Your task to perform on an android device: turn off improve location accuracy Image 0: 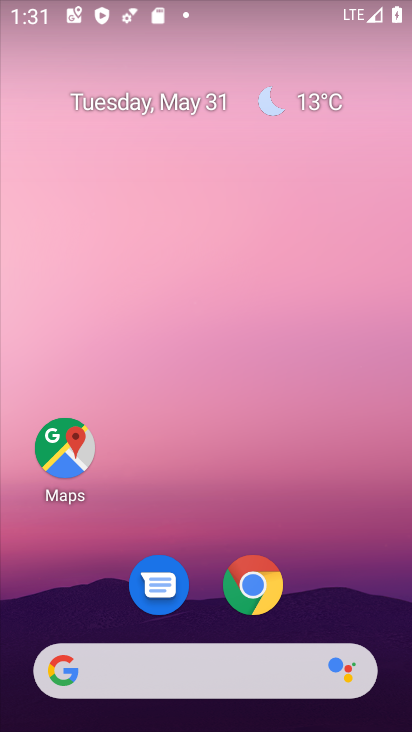
Step 0: drag from (272, 519) to (206, 23)
Your task to perform on an android device: turn off improve location accuracy Image 1: 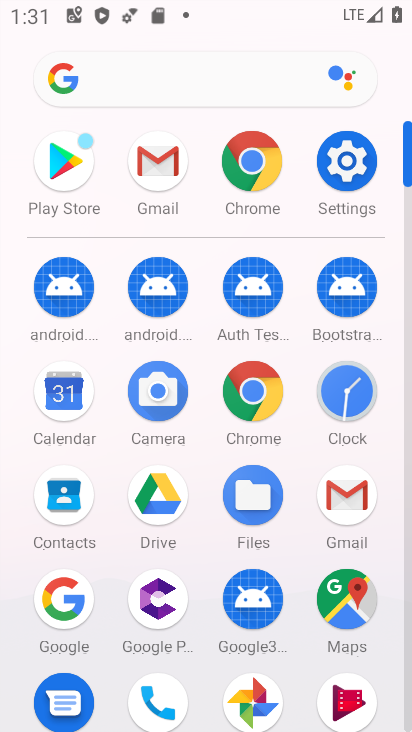
Step 1: click (348, 162)
Your task to perform on an android device: turn off improve location accuracy Image 2: 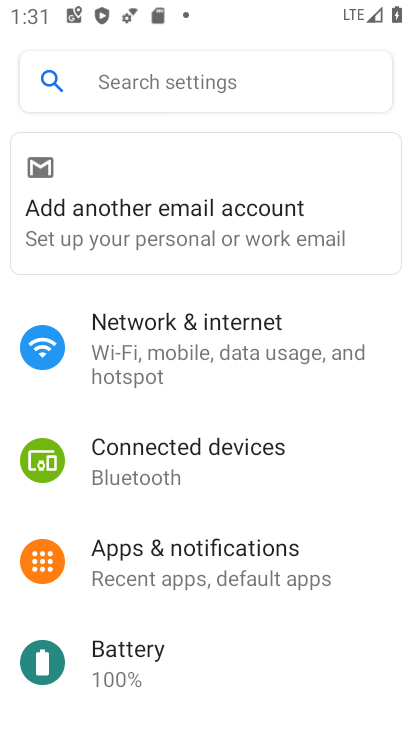
Step 2: drag from (227, 615) to (225, 64)
Your task to perform on an android device: turn off improve location accuracy Image 3: 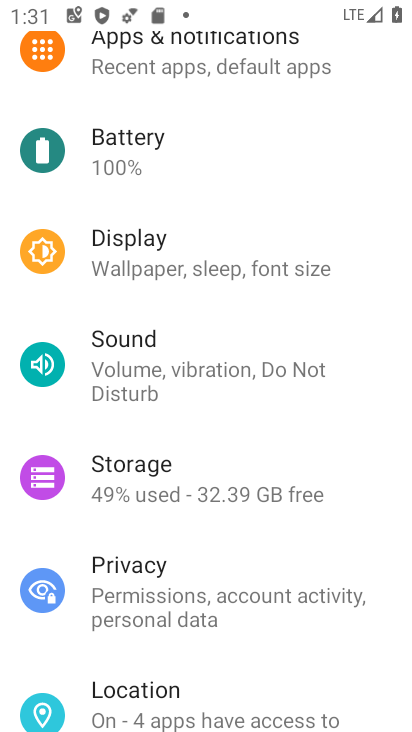
Step 3: click (201, 713)
Your task to perform on an android device: turn off improve location accuracy Image 4: 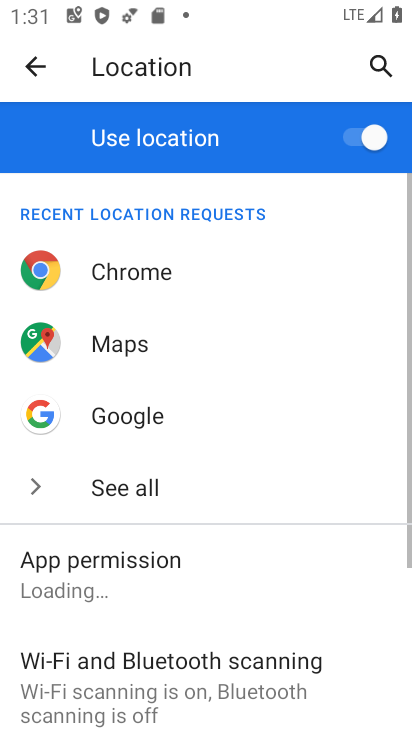
Step 4: drag from (278, 563) to (268, 165)
Your task to perform on an android device: turn off improve location accuracy Image 5: 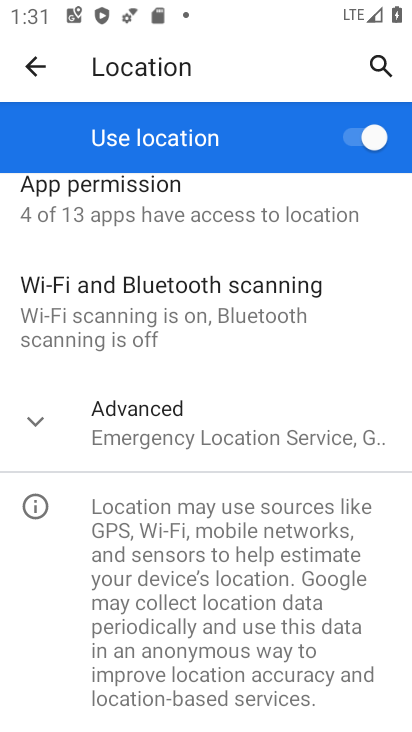
Step 5: click (30, 409)
Your task to perform on an android device: turn off improve location accuracy Image 6: 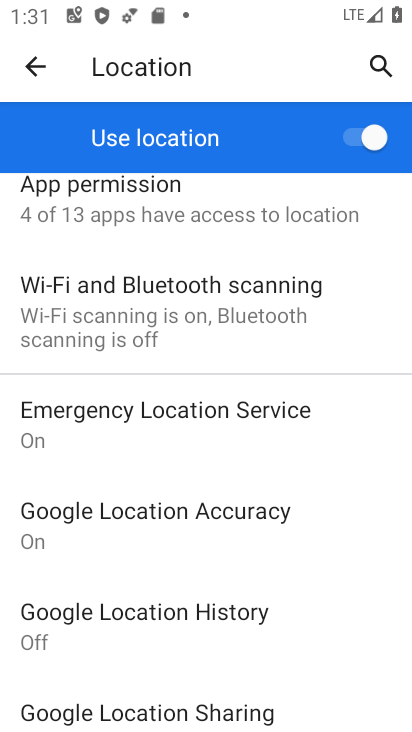
Step 6: click (245, 523)
Your task to perform on an android device: turn off improve location accuracy Image 7: 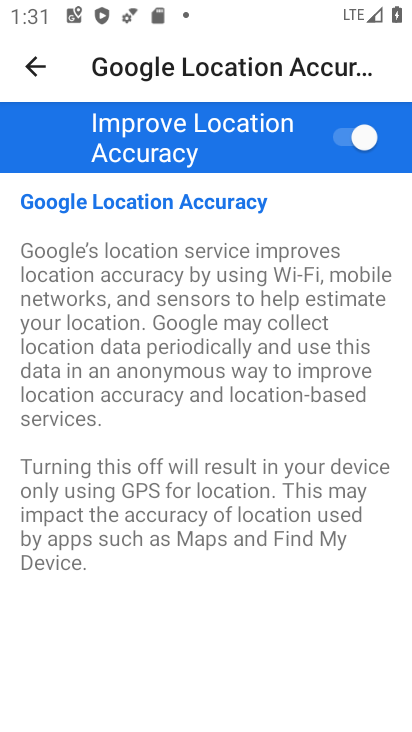
Step 7: click (339, 128)
Your task to perform on an android device: turn off improve location accuracy Image 8: 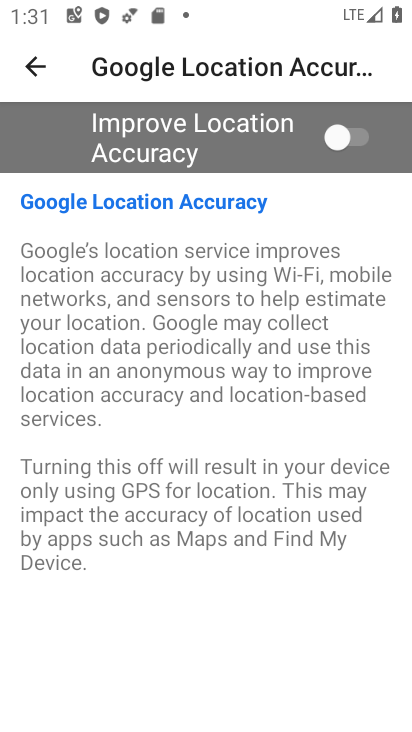
Step 8: task complete